Your task to perform on an android device: Open Yahoo.com Image 0: 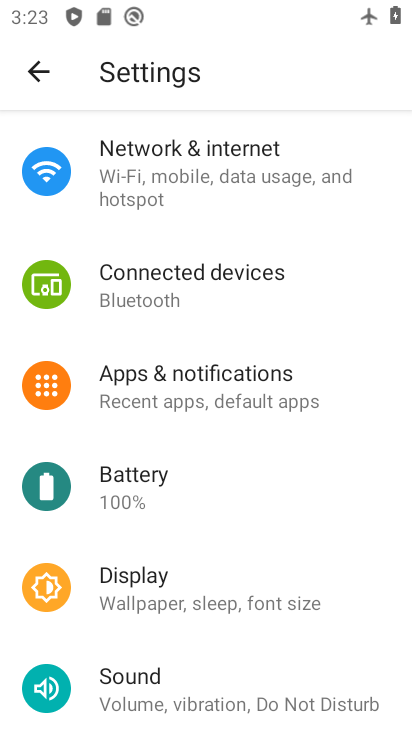
Step 0: press home button
Your task to perform on an android device: Open Yahoo.com Image 1: 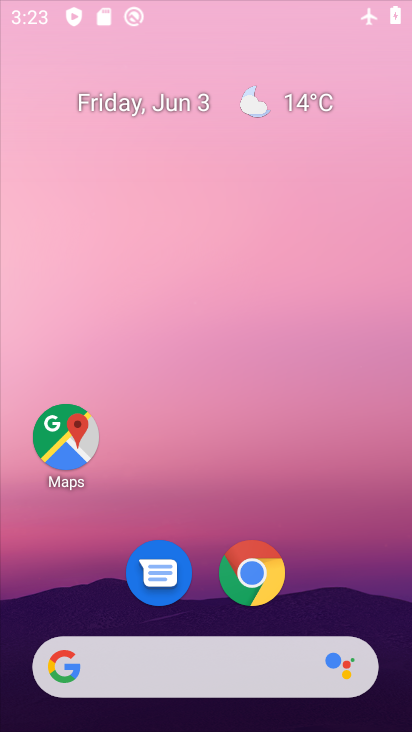
Step 1: drag from (219, 654) to (206, 130)
Your task to perform on an android device: Open Yahoo.com Image 2: 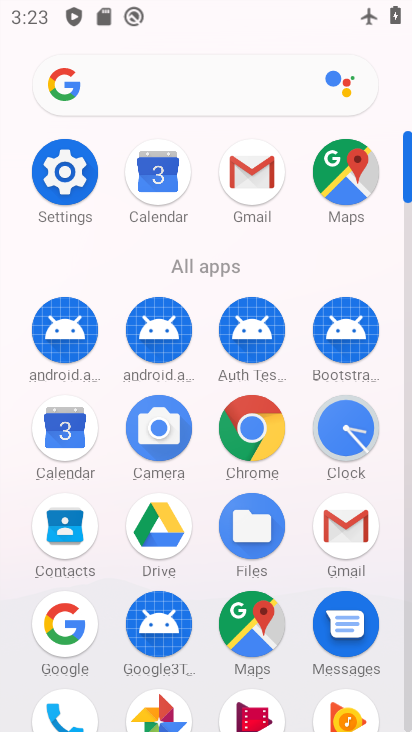
Step 2: click (245, 437)
Your task to perform on an android device: Open Yahoo.com Image 3: 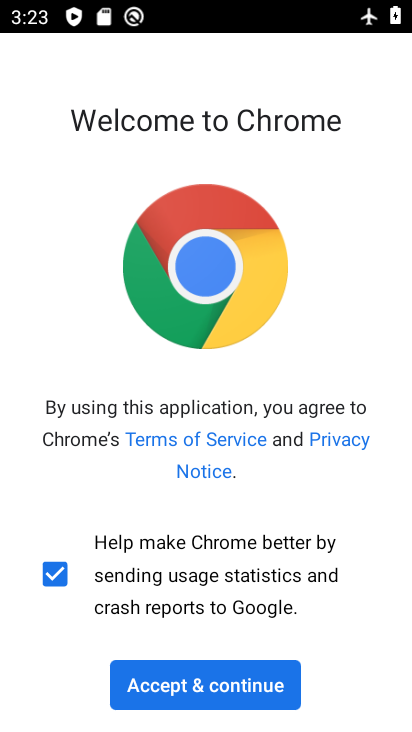
Step 3: click (155, 680)
Your task to perform on an android device: Open Yahoo.com Image 4: 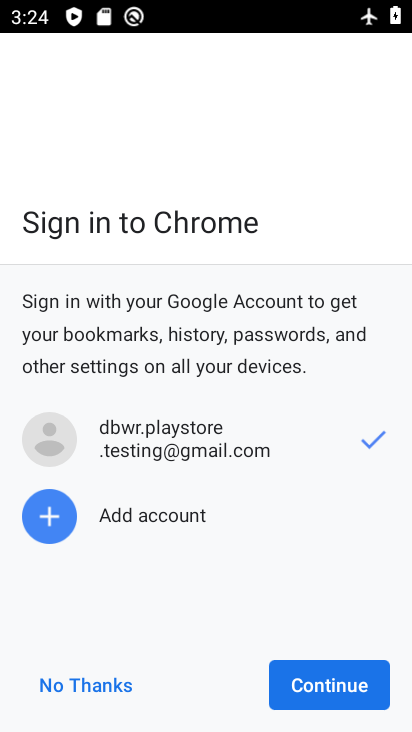
Step 4: click (338, 684)
Your task to perform on an android device: Open Yahoo.com Image 5: 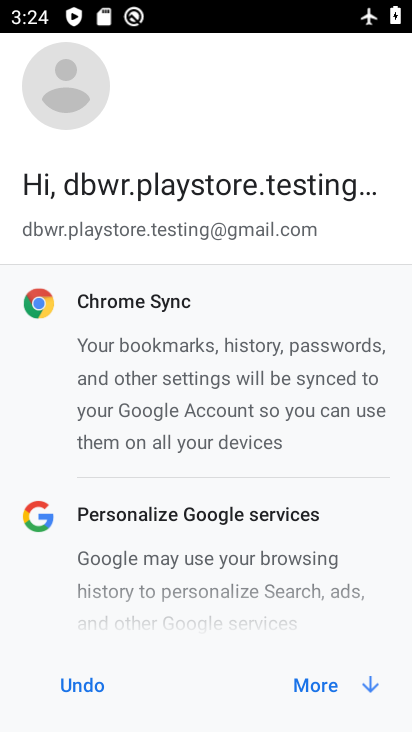
Step 5: click (339, 683)
Your task to perform on an android device: Open Yahoo.com Image 6: 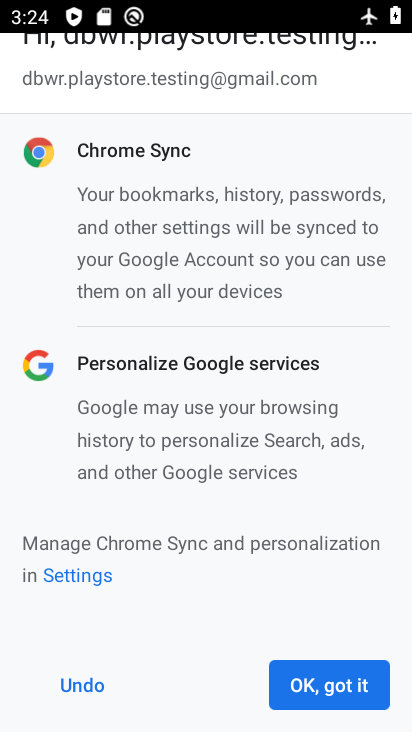
Step 6: click (329, 683)
Your task to perform on an android device: Open Yahoo.com Image 7: 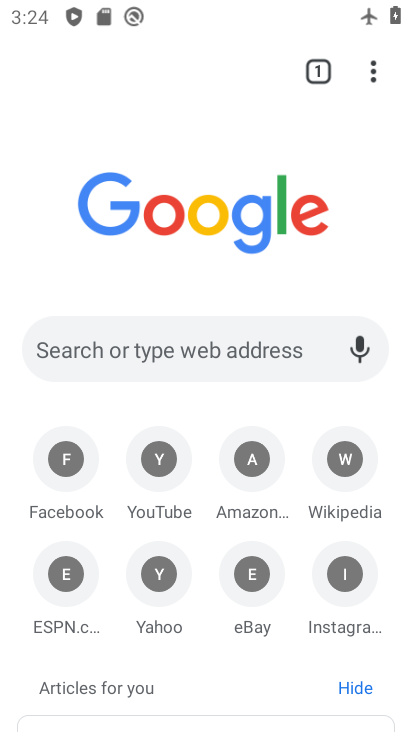
Step 7: click (169, 583)
Your task to perform on an android device: Open Yahoo.com Image 8: 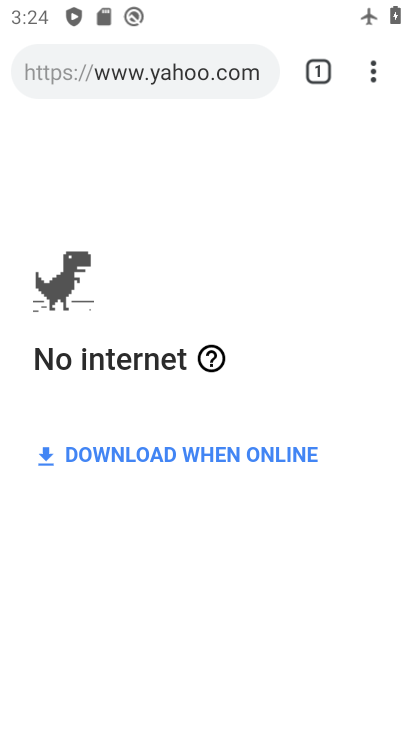
Step 8: task complete